Your task to perform on an android device: Open Chrome and go to the settings page Image 0: 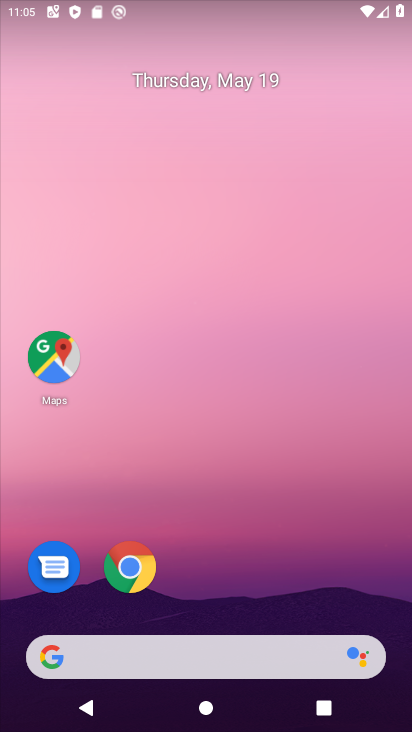
Step 0: click (132, 566)
Your task to perform on an android device: Open Chrome and go to the settings page Image 1: 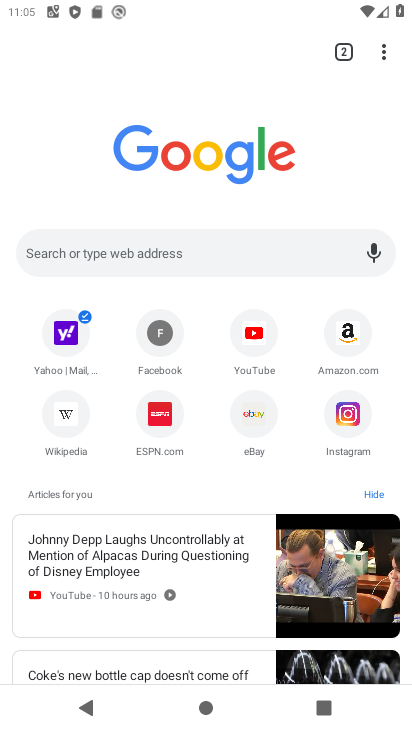
Step 1: click (380, 50)
Your task to perform on an android device: Open Chrome and go to the settings page Image 2: 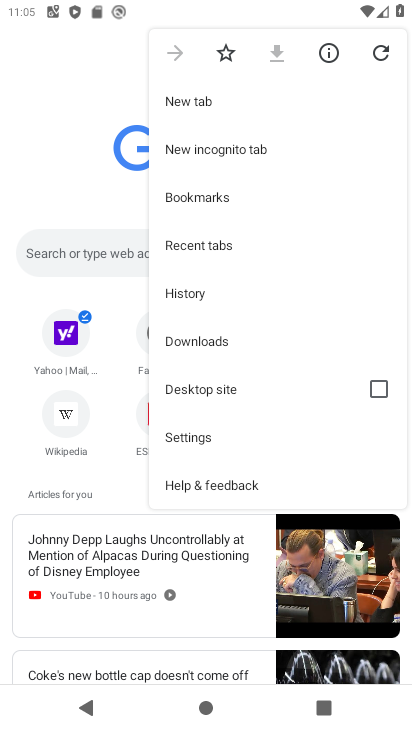
Step 2: click (198, 434)
Your task to perform on an android device: Open Chrome and go to the settings page Image 3: 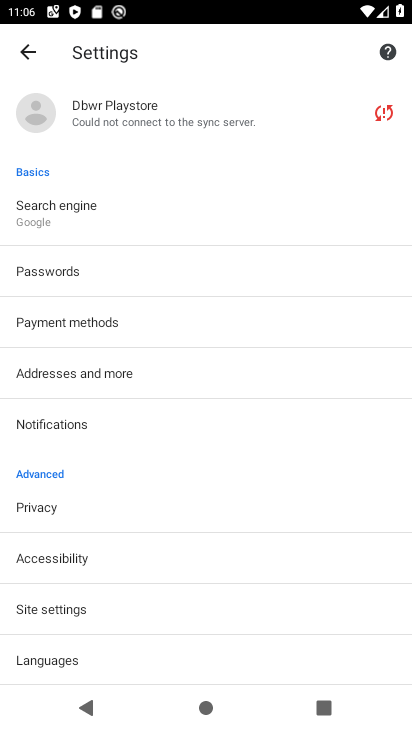
Step 3: task complete